Your task to perform on an android device: Go to eBay Image 0: 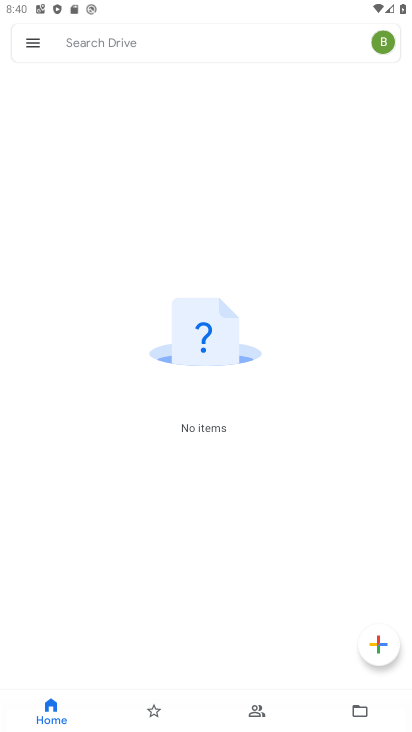
Step 0: press home button
Your task to perform on an android device: Go to eBay Image 1: 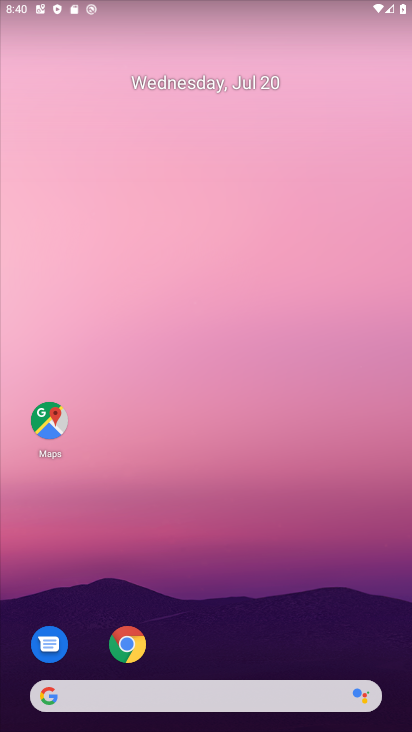
Step 1: click (133, 636)
Your task to perform on an android device: Go to eBay Image 2: 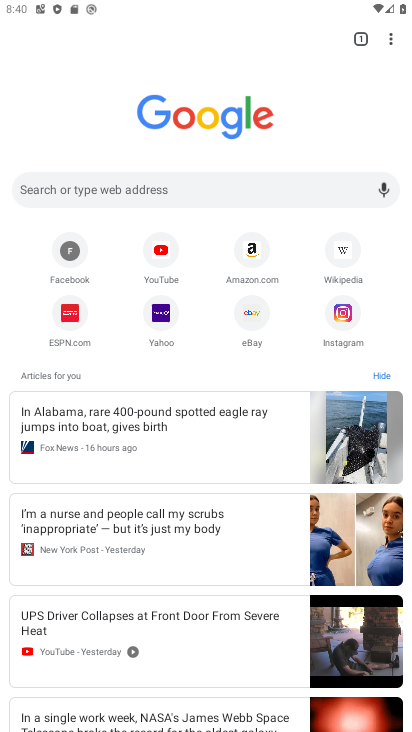
Step 2: click (243, 305)
Your task to perform on an android device: Go to eBay Image 3: 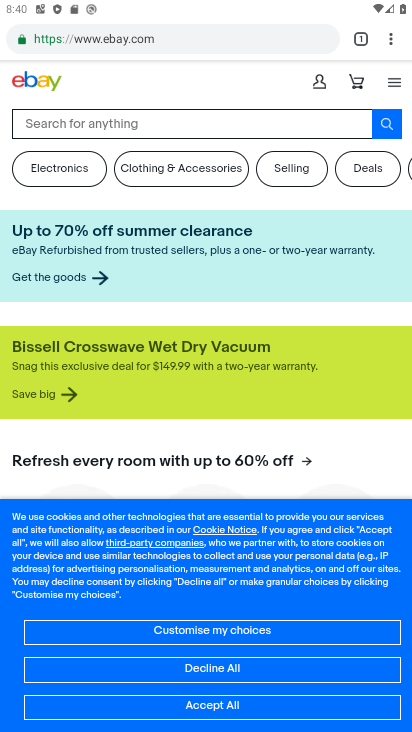
Step 3: task complete